Your task to perform on an android device: Open Amazon Image 0: 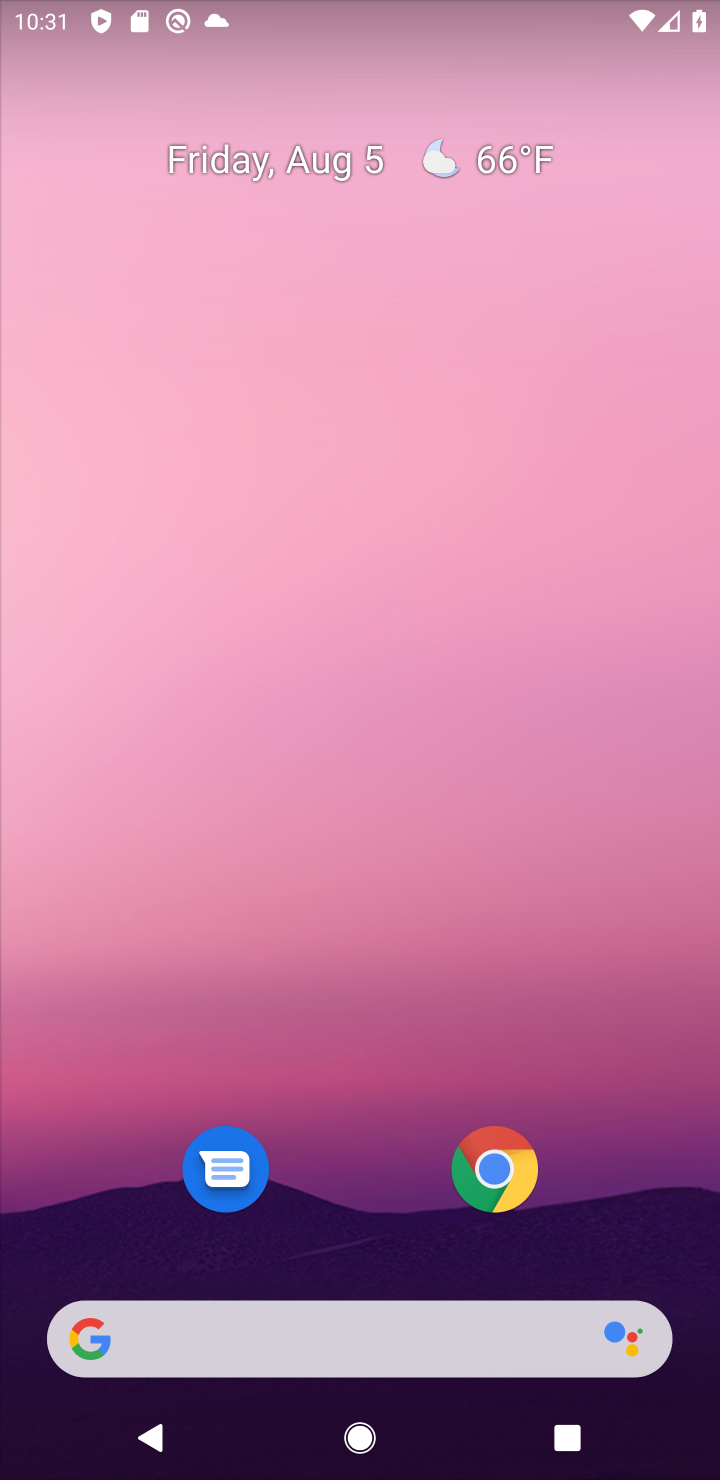
Step 0: click (489, 1170)
Your task to perform on an android device: Open Amazon Image 1: 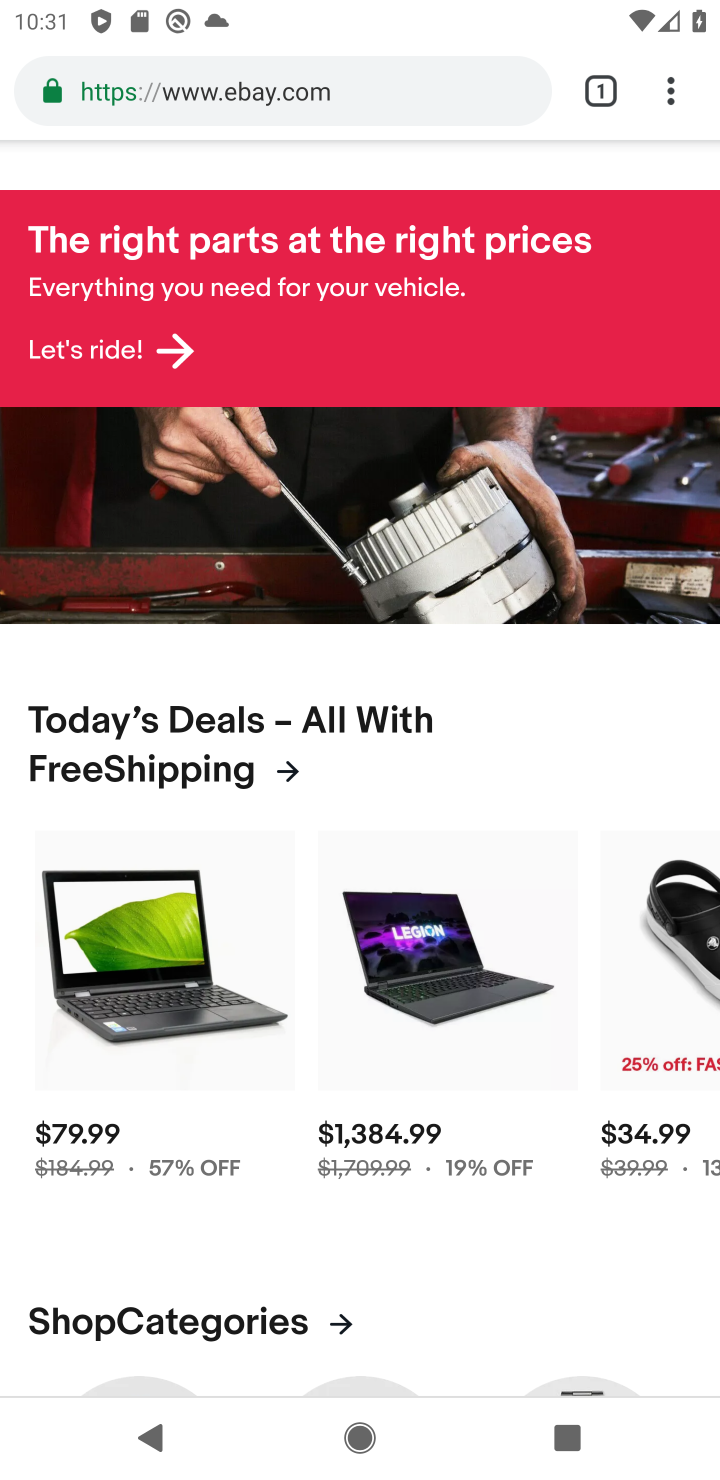
Step 1: click (409, 76)
Your task to perform on an android device: Open Amazon Image 2: 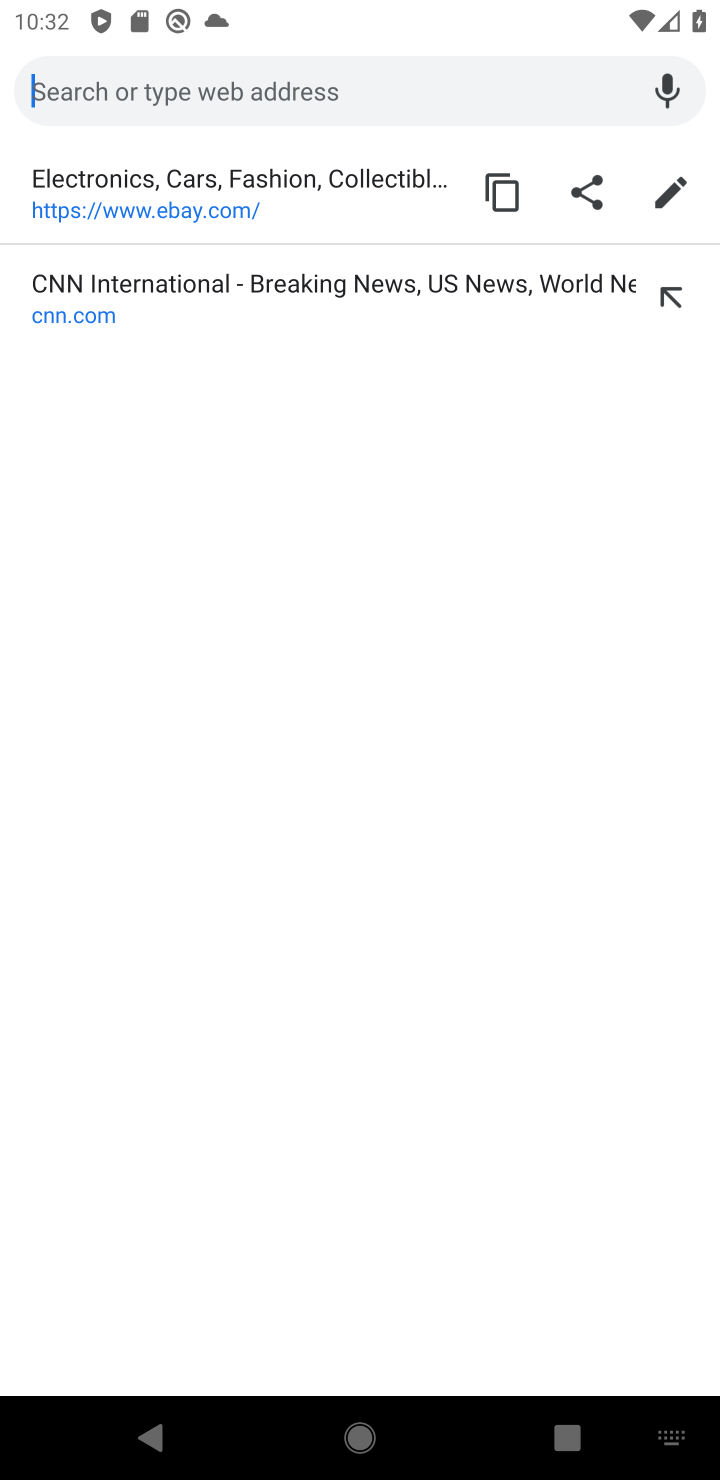
Step 2: type "amazon"
Your task to perform on an android device: Open Amazon Image 3: 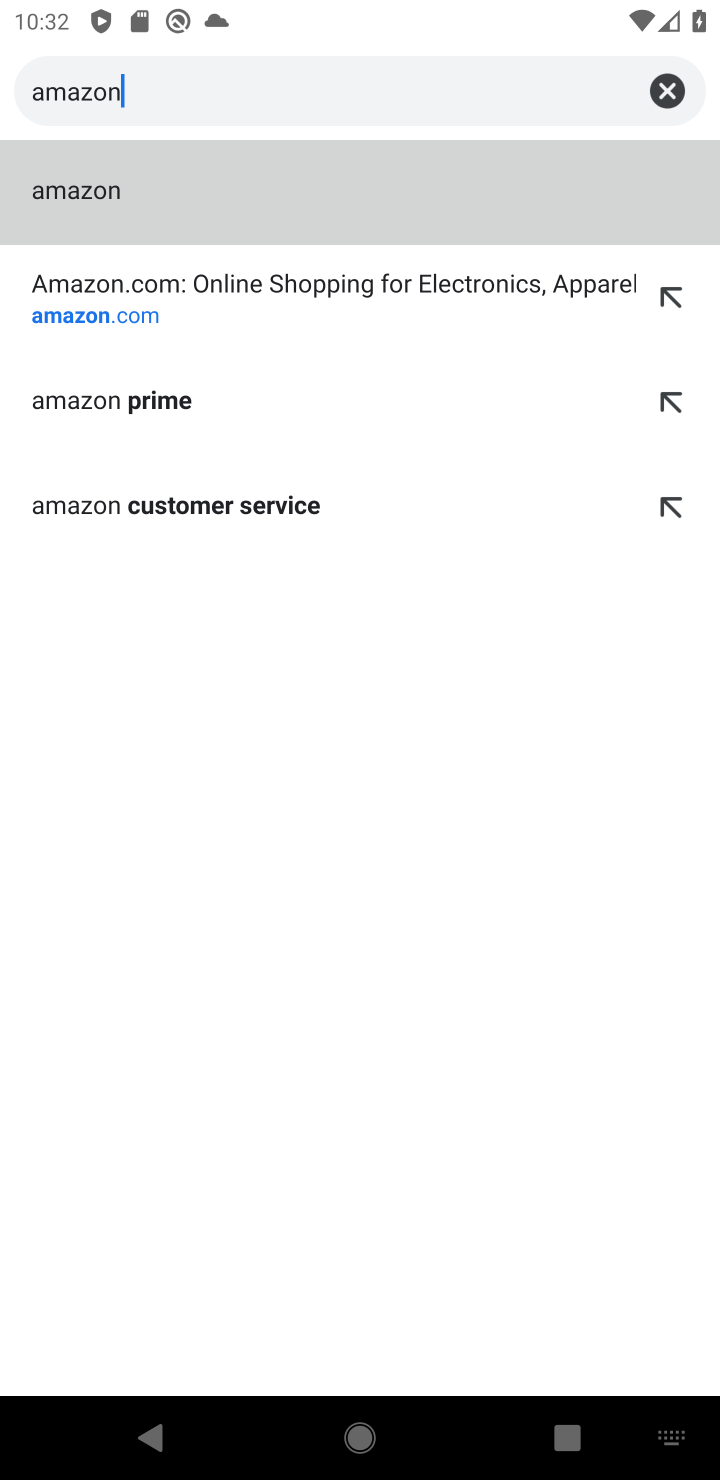
Step 3: click (107, 274)
Your task to perform on an android device: Open Amazon Image 4: 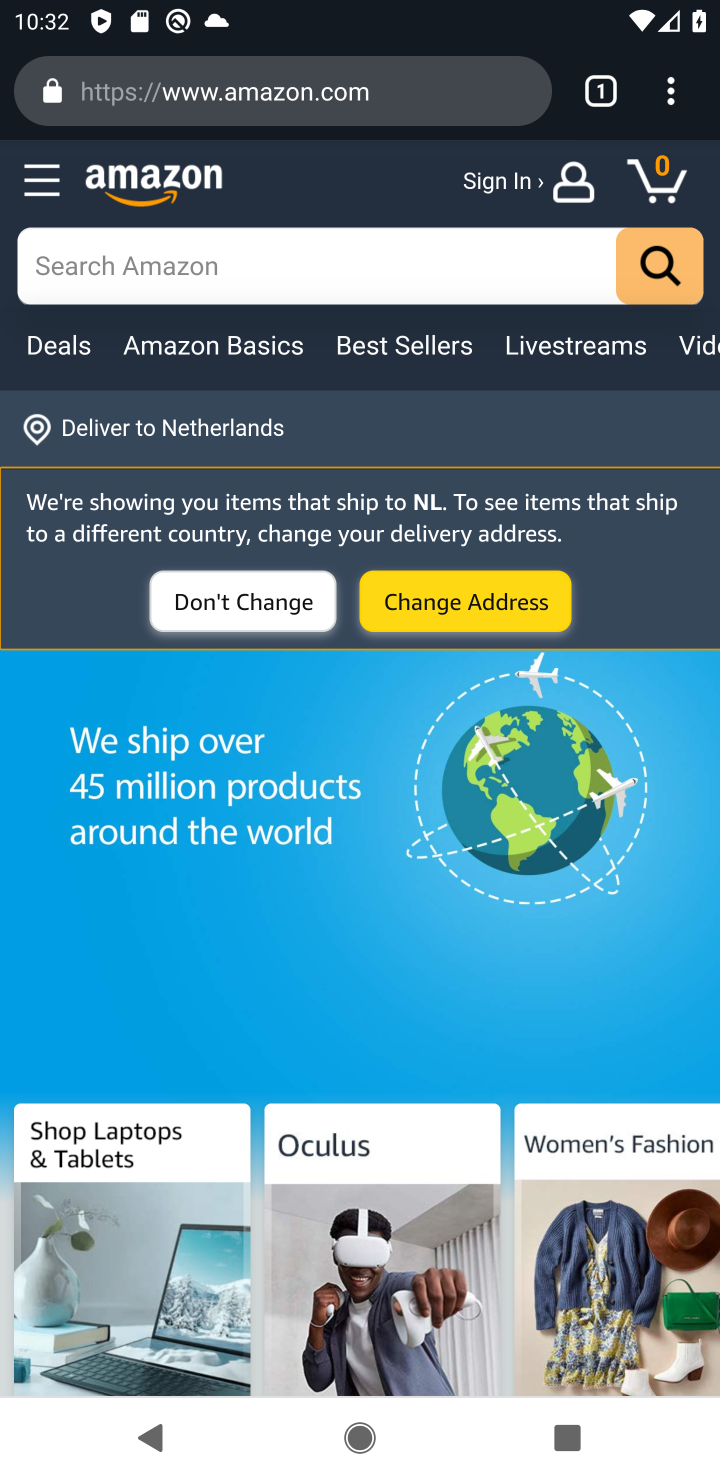
Step 4: task complete